Your task to perform on an android device: turn on airplane mode Image 0: 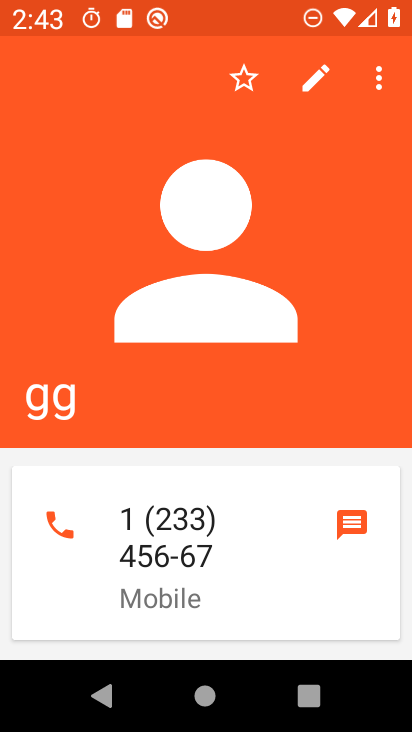
Step 0: press home button
Your task to perform on an android device: turn on airplane mode Image 1: 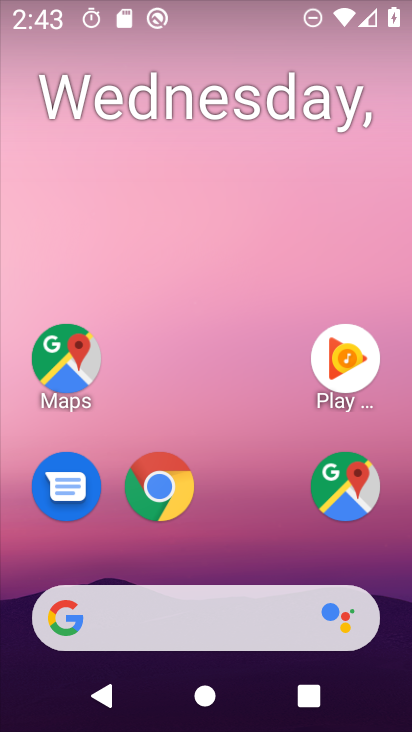
Step 1: drag from (244, 528) to (336, 67)
Your task to perform on an android device: turn on airplane mode Image 2: 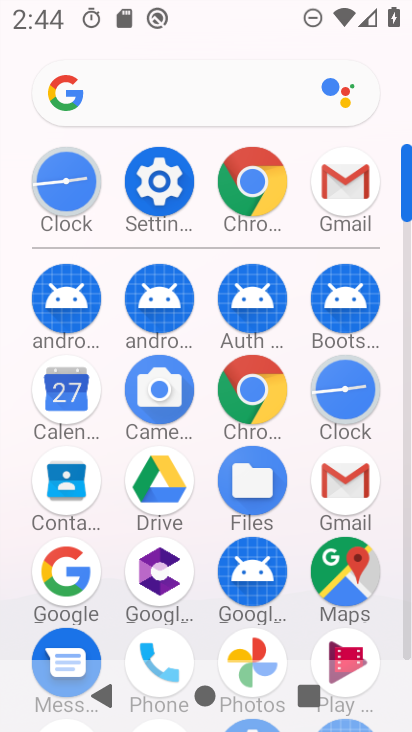
Step 2: click (160, 189)
Your task to perform on an android device: turn on airplane mode Image 3: 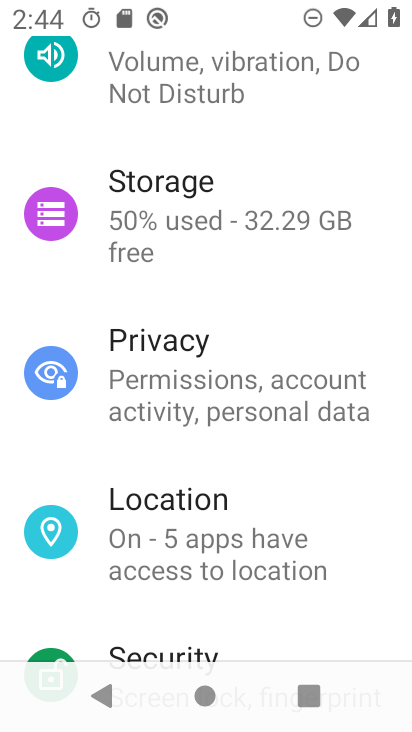
Step 3: drag from (303, 475) to (310, 389)
Your task to perform on an android device: turn on airplane mode Image 4: 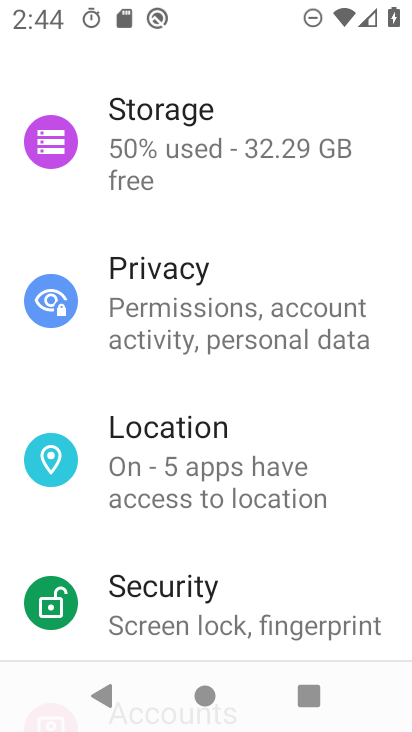
Step 4: drag from (348, 527) to (347, 447)
Your task to perform on an android device: turn on airplane mode Image 5: 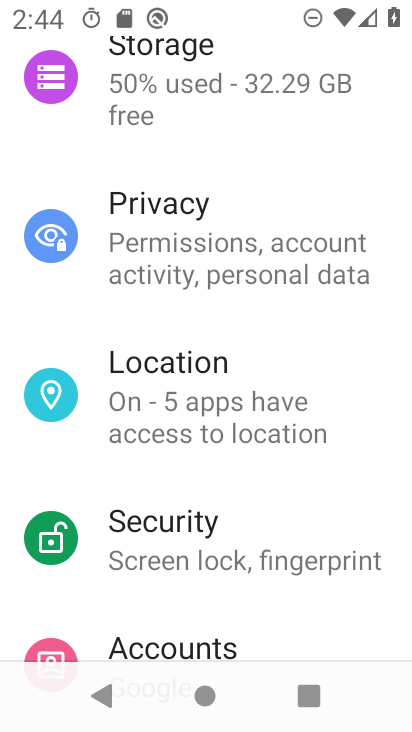
Step 5: drag from (346, 563) to (359, 424)
Your task to perform on an android device: turn on airplane mode Image 6: 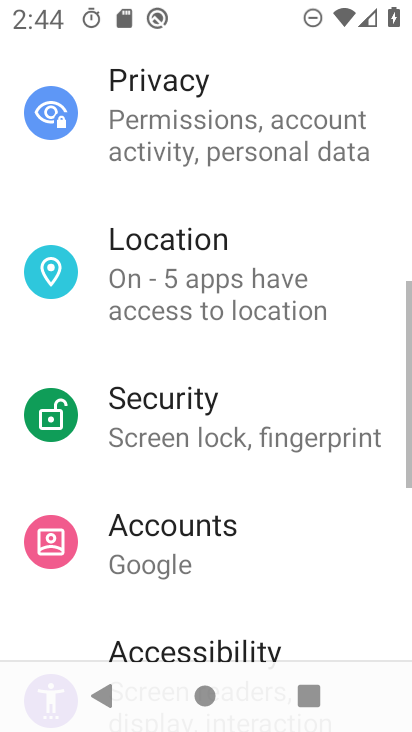
Step 6: drag from (348, 565) to (347, 488)
Your task to perform on an android device: turn on airplane mode Image 7: 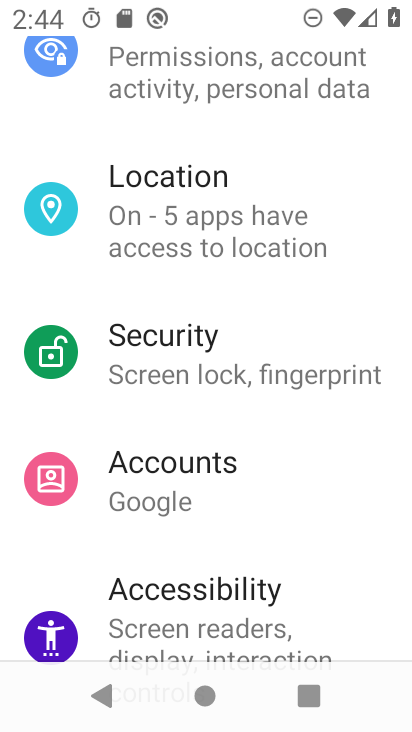
Step 7: drag from (374, 239) to (360, 402)
Your task to perform on an android device: turn on airplane mode Image 8: 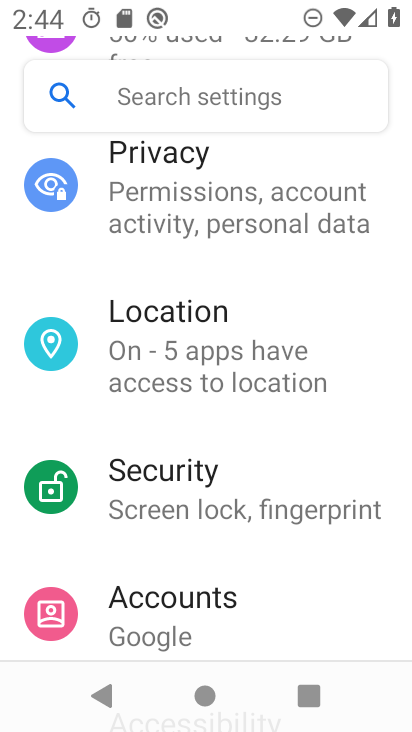
Step 8: drag from (356, 283) to (364, 431)
Your task to perform on an android device: turn on airplane mode Image 9: 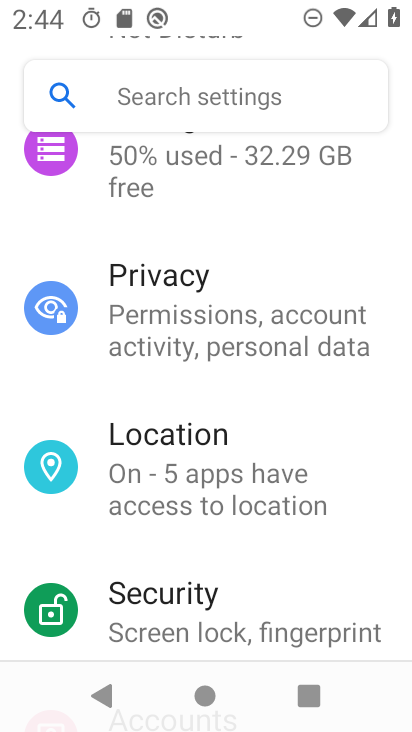
Step 9: drag from (366, 220) to (363, 357)
Your task to perform on an android device: turn on airplane mode Image 10: 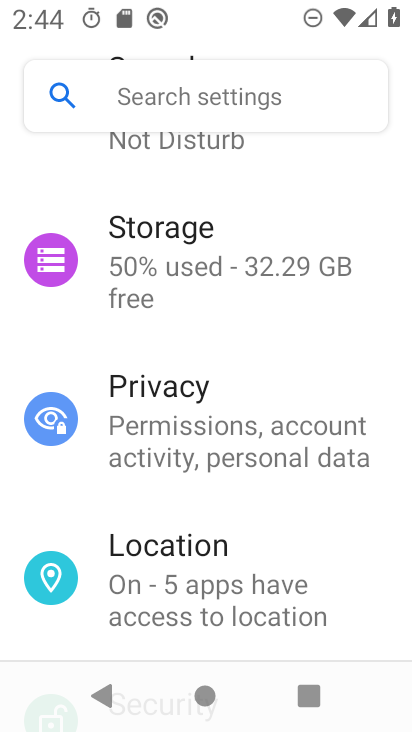
Step 10: drag from (366, 202) to (365, 338)
Your task to perform on an android device: turn on airplane mode Image 11: 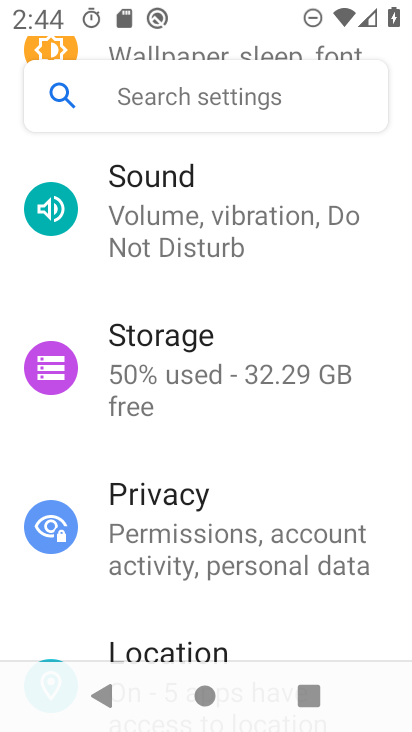
Step 11: drag from (365, 238) to (364, 313)
Your task to perform on an android device: turn on airplane mode Image 12: 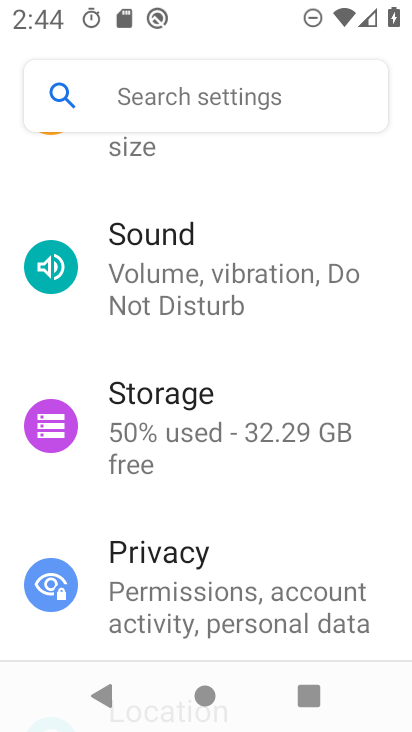
Step 12: drag from (372, 174) to (383, 308)
Your task to perform on an android device: turn on airplane mode Image 13: 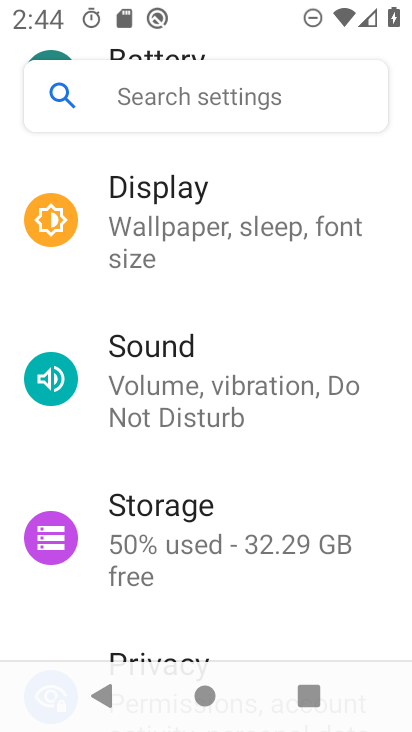
Step 13: drag from (369, 167) to (376, 313)
Your task to perform on an android device: turn on airplane mode Image 14: 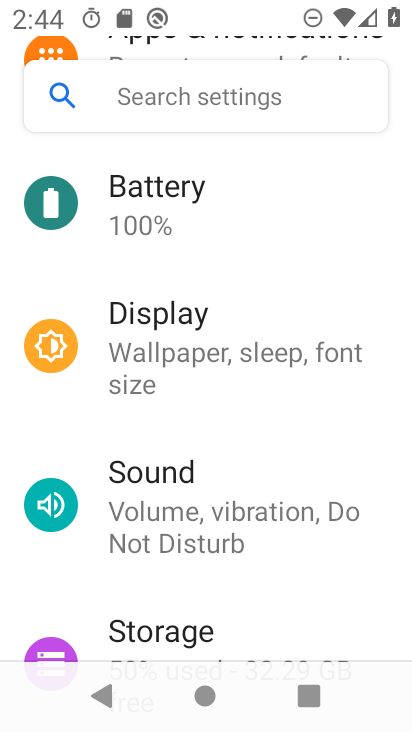
Step 14: drag from (372, 223) to (375, 356)
Your task to perform on an android device: turn on airplane mode Image 15: 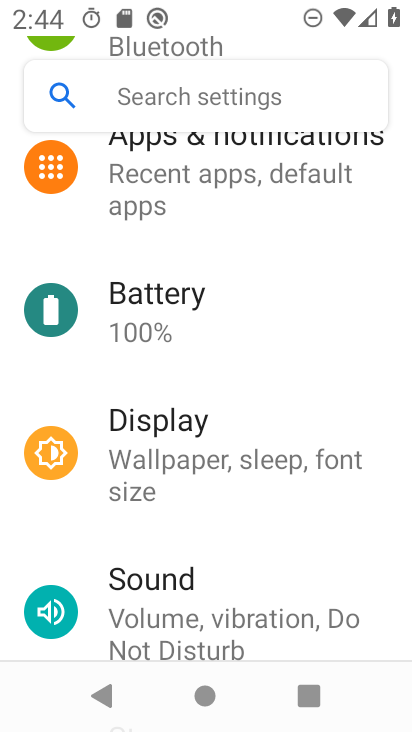
Step 15: drag from (369, 194) to (363, 360)
Your task to perform on an android device: turn on airplane mode Image 16: 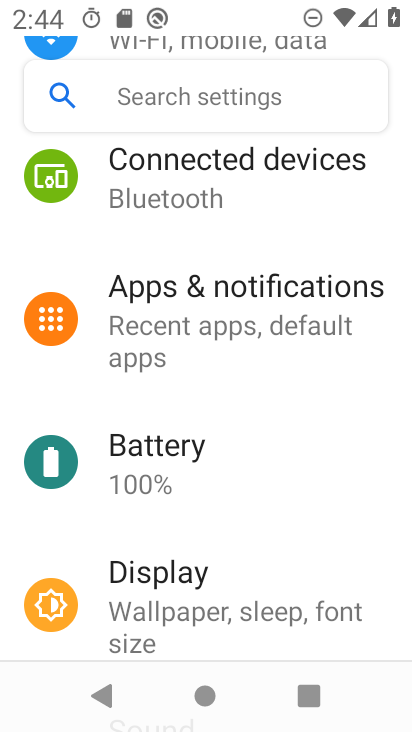
Step 16: drag from (362, 182) to (363, 346)
Your task to perform on an android device: turn on airplane mode Image 17: 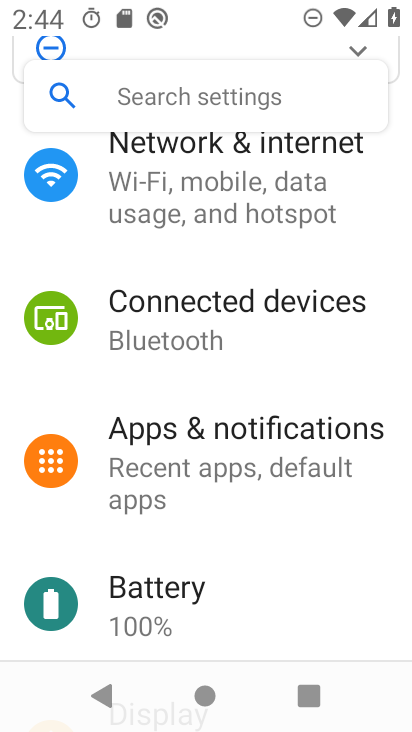
Step 17: drag from (377, 163) to (387, 342)
Your task to perform on an android device: turn on airplane mode Image 18: 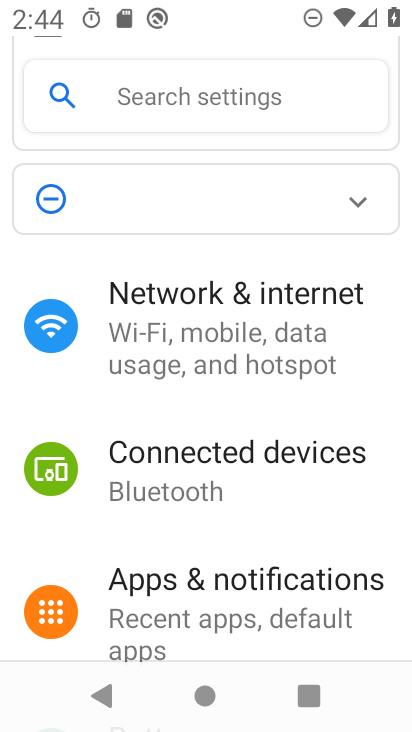
Step 18: click (278, 342)
Your task to perform on an android device: turn on airplane mode Image 19: 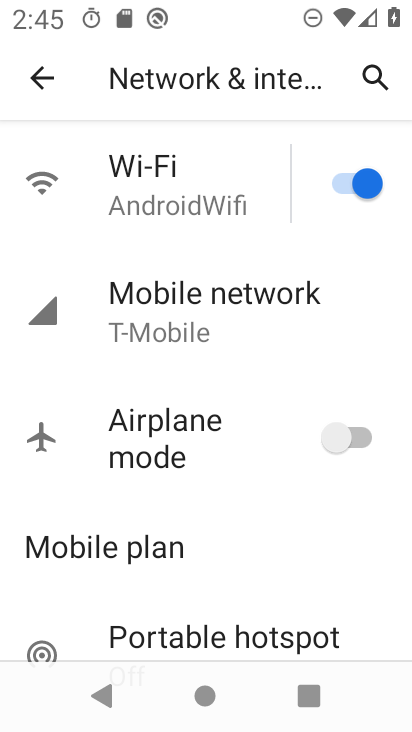
Step 19: click (344, 445)
Your task to perform on an android device: turn on airplane mode Image 20: 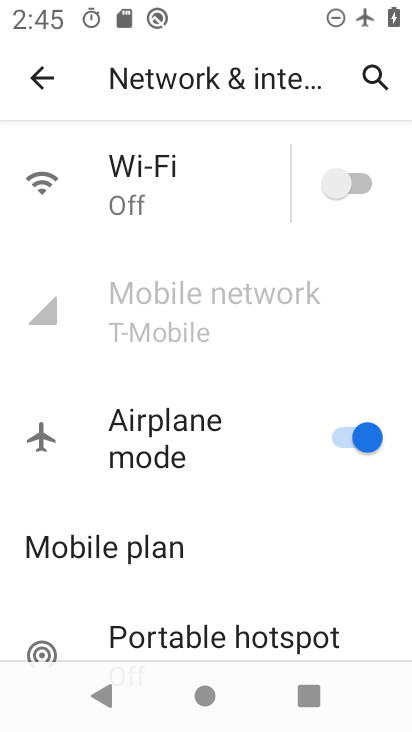
Step 20: task complete